Your task to perform on an android device: Go to Android settings Image 0: 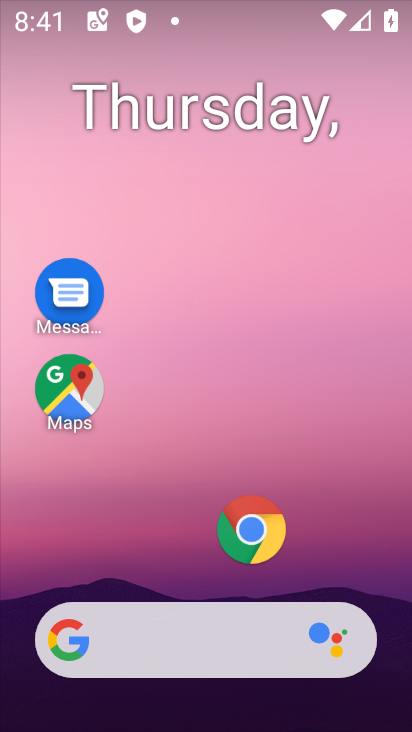
Step 0: drag from (180, 563) to (200, 61)
Your task to perform on an android device: Go to Android settings Image 1: 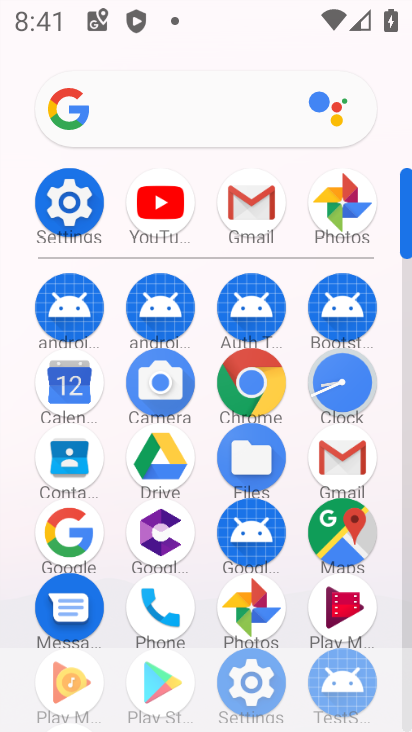
Step 1: click (85, 205)
Your task to perform on an android device: Go to Android settings Image 2: 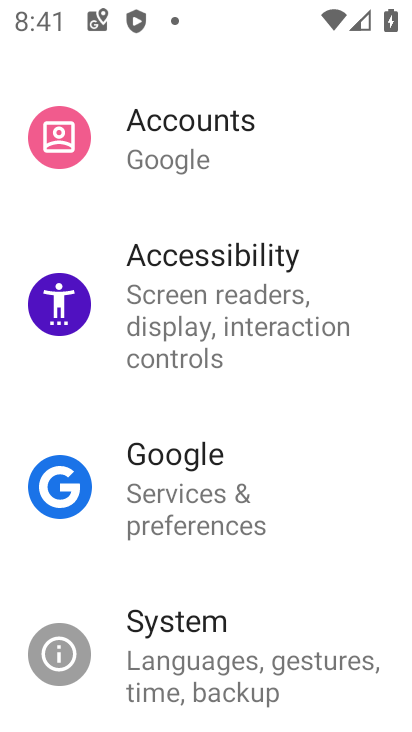
Step 2: task complete